Your task to perform on an android device: Go to internet settings Image 0: 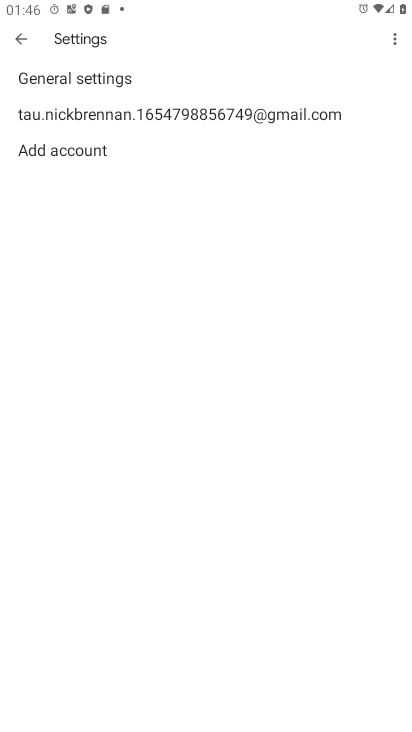
Step 0: press home button
Your task to perform on an android device: Go to internet settings Image 1: 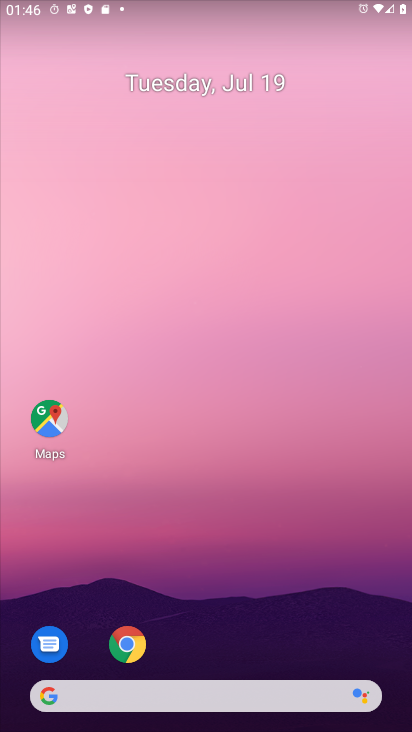
Step 1: drag from (233, 726) to (233, 135)
Your task to perform on an android device: Go to internet settings Image 2: 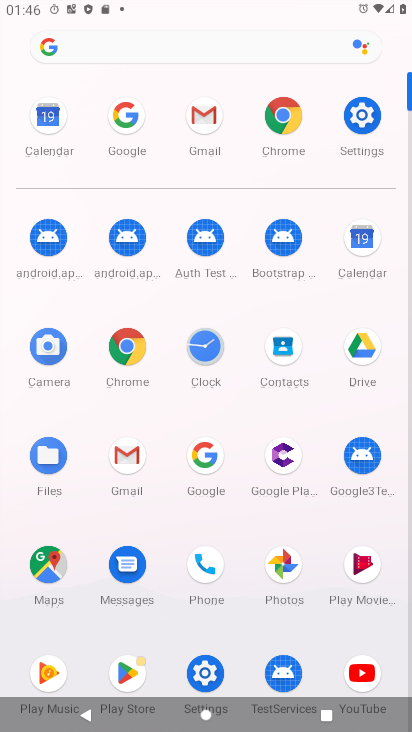
Step 2: click (368, 116)
Your task to perform on an android device: Go to internet settings Image 3: 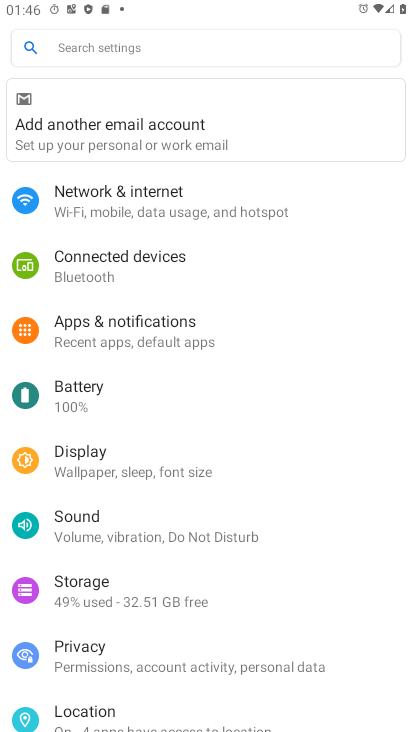
Step 3: click (92, 198)
Your task to perform on an android device: Go to internet settings Image 4: 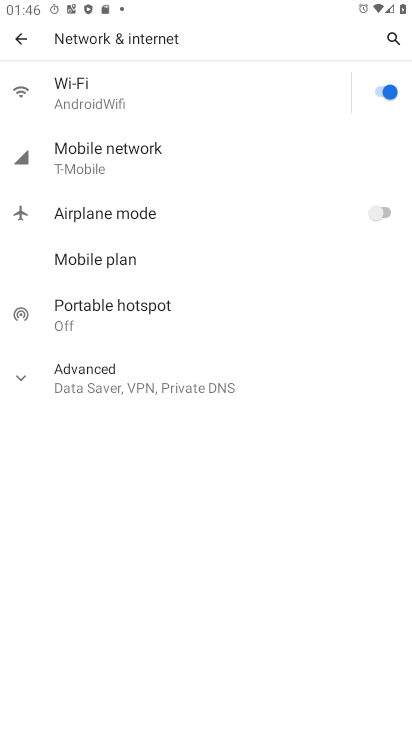
Step 4: task complete